Your task to perform on an android device: Search for vegetarian restaurants on Maps Image 0: 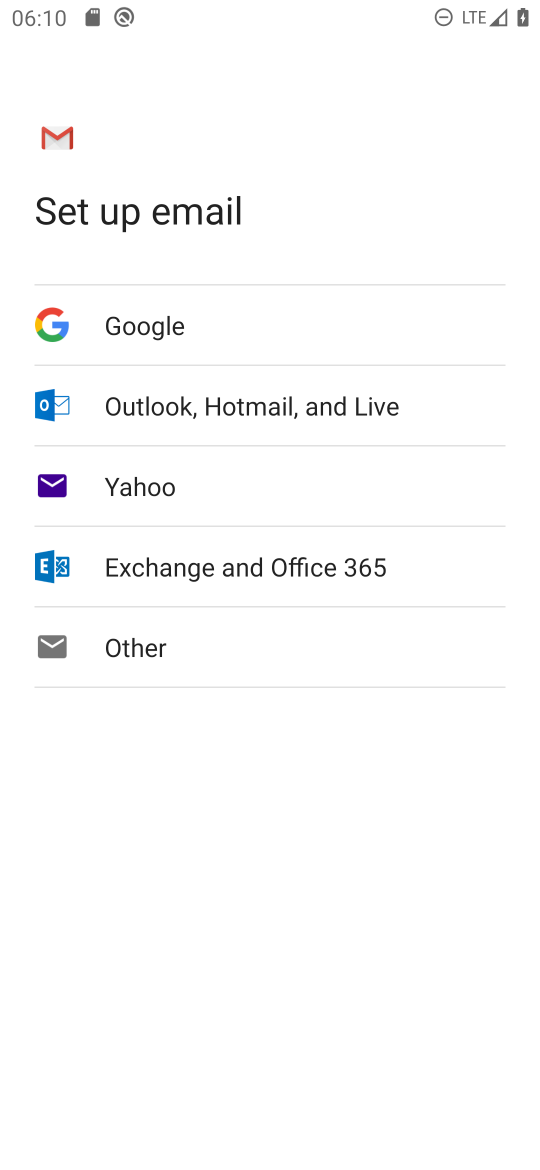
Step 0: press home button
Your task to perform on an android device: Search for vegetarian restaurants on Maps Image 1: 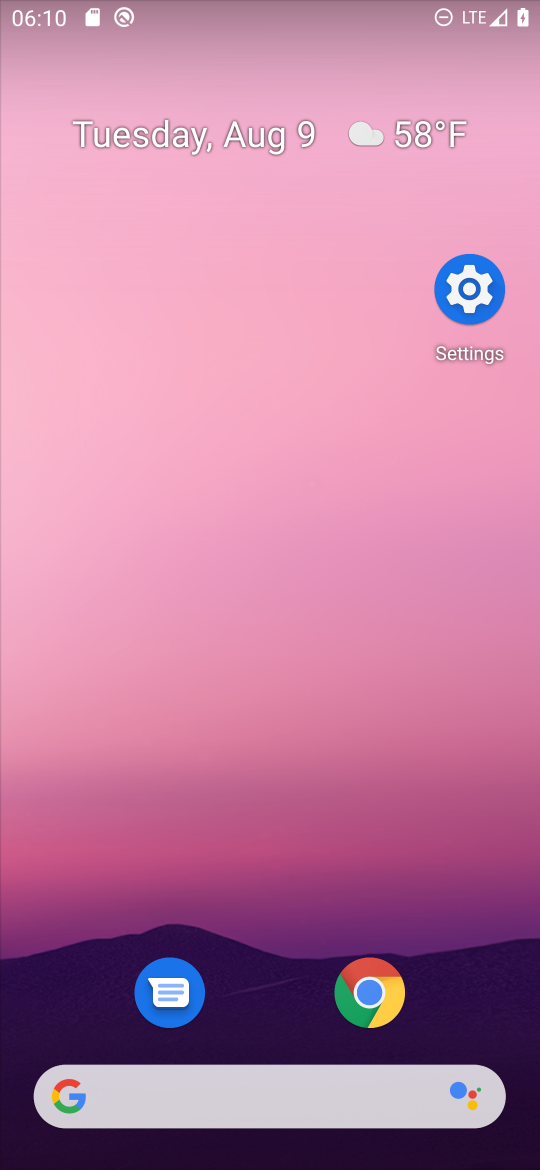
Step 1: drag from (238, 1098) to (289, 11)
Your task to perform on an android device: Search for vegetarian restaurants on Maps Image 2: 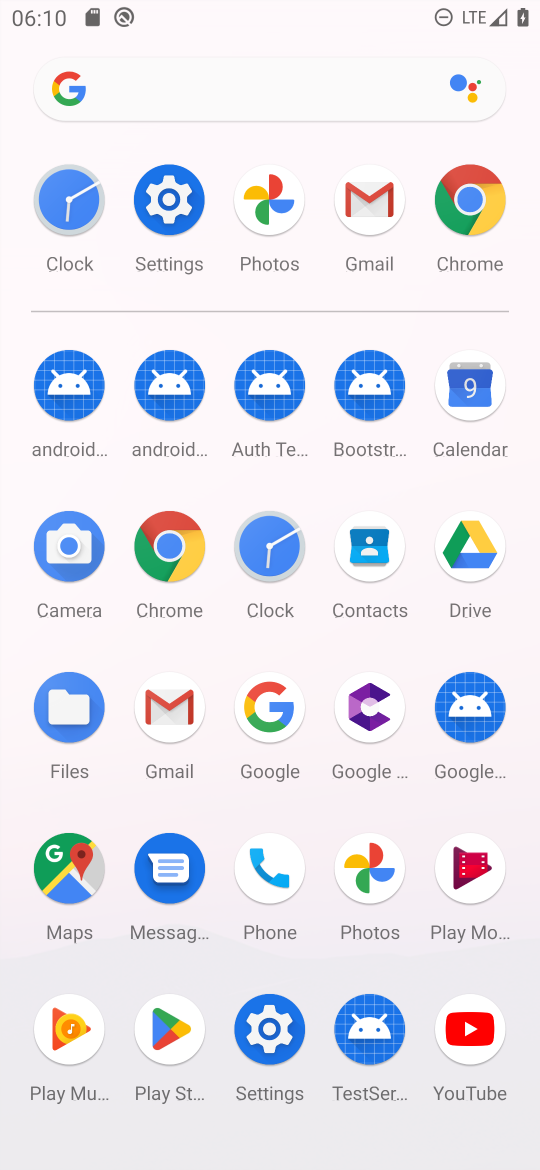
Step 2: click (78, 861)
Your task to perform on an android device: Search for vegetarian restaurants on Maps Image 3: 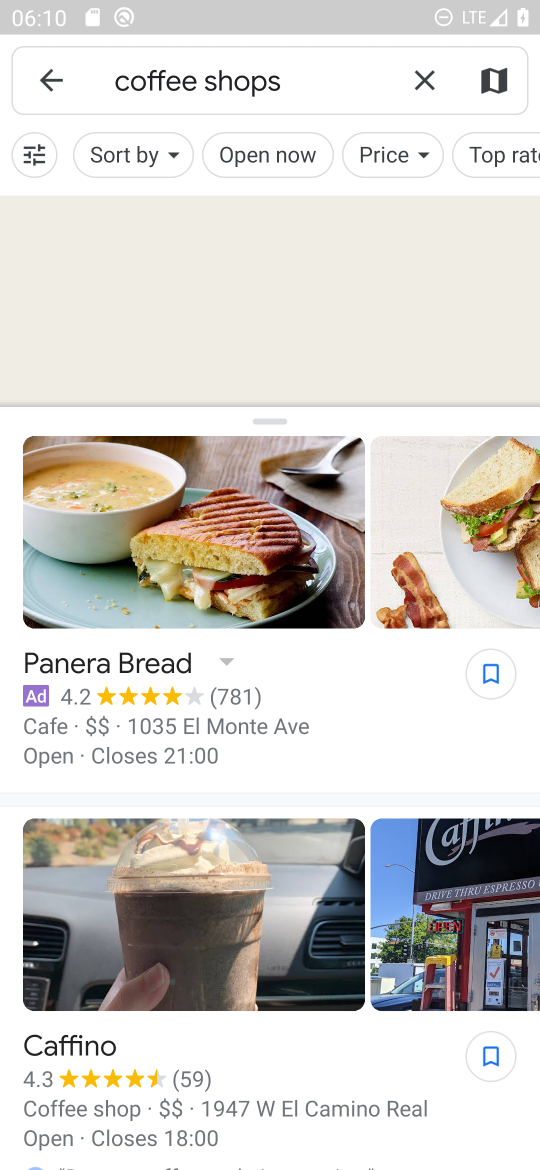
Step 3: click (419, 75)
Your task to perform on an android device: Search for vegetarian restaurants on Maps Image 4: 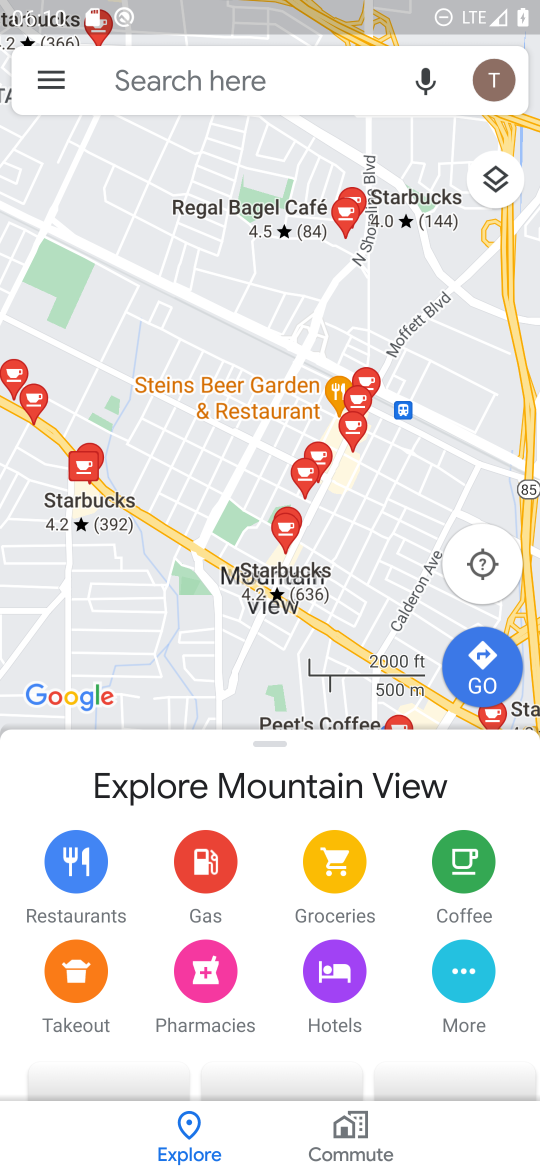
Step 4: click (299, 70)
Your task to perform on an android device: Search for vegetarian restaurants on Maps Image 5: 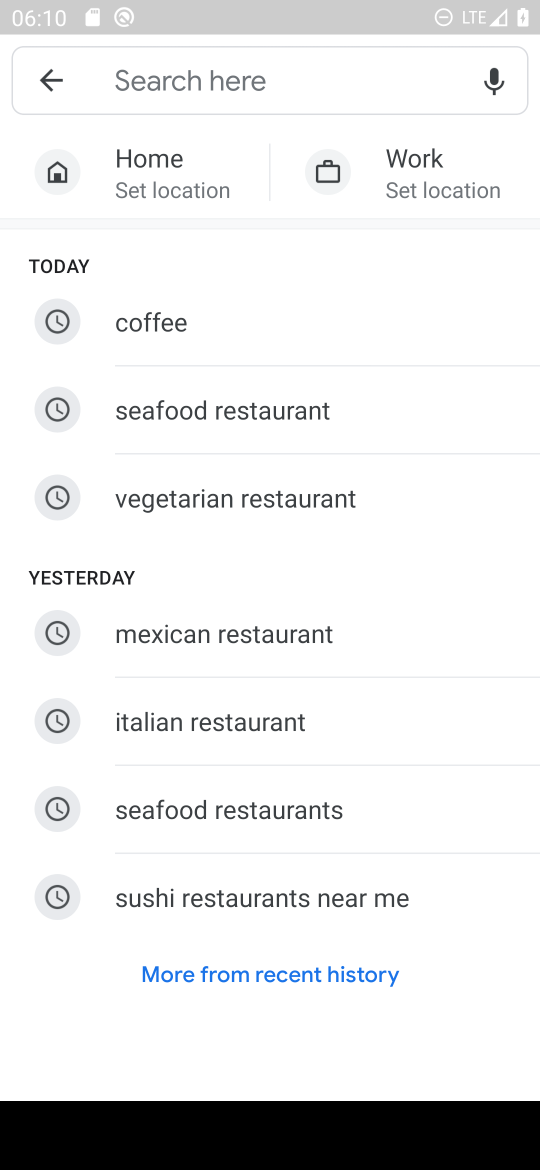
Step 5: click (239, 495)
Your task to perform on an android device: Search for vegetarian restaurants on Maps Image 6: 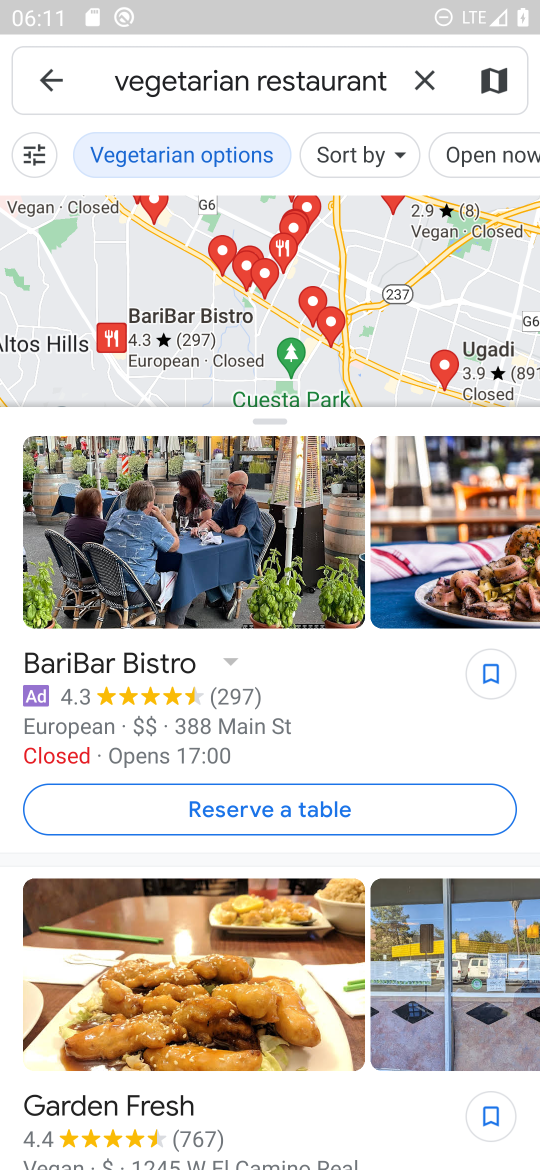
Step 6: task complete